Your task to perform on an android device: open device folders in google photos Image 0: 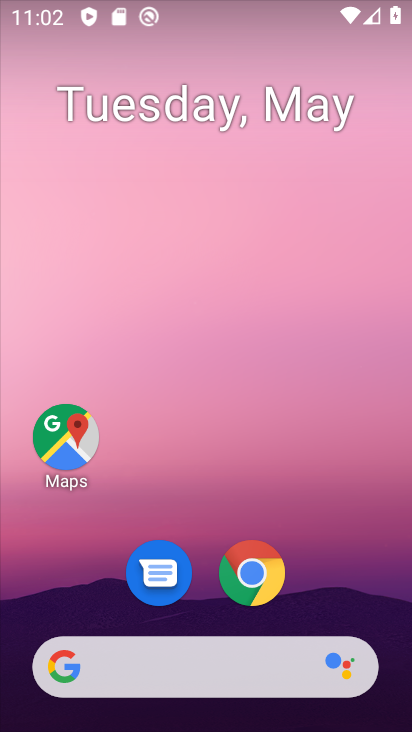
Step 0: drag from (236, 710) to (267, 159)
Your task to perform on an android device: open device folders in google photos Image 1: 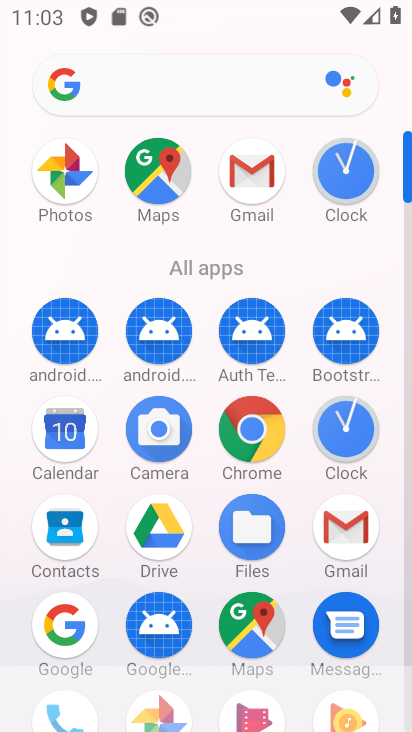
Step 1: drag from (194, 467) to (237, 276)
Your task to perform on an android device: open device folders in google photos Image 2: 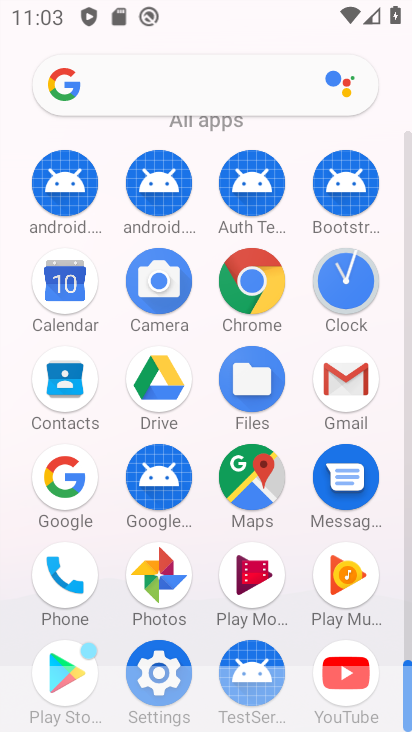
Step 2: click (150, 565)
Your task to perform on an android device: open device folders in google photos Image 3: 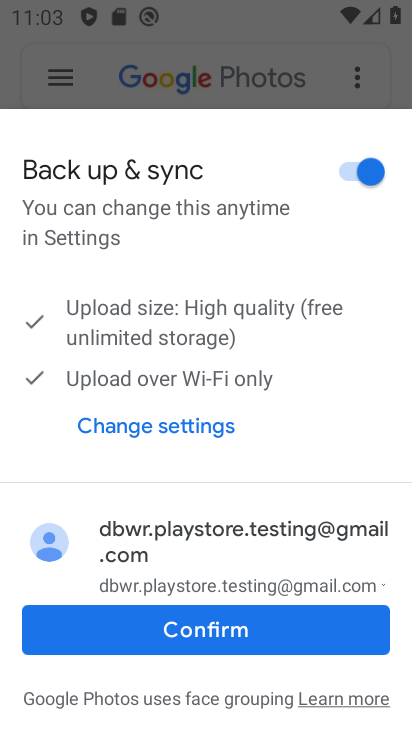
Step 3: click (222, 635)
Your task to perform on an android device: open device folders in google photos Image 4: 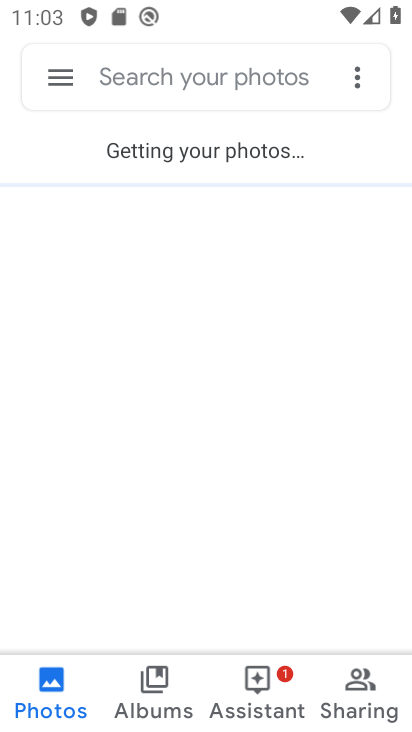
Step 4: click (59, 72)
Your task to perform on an android device: open device folders in google photos Image 5: 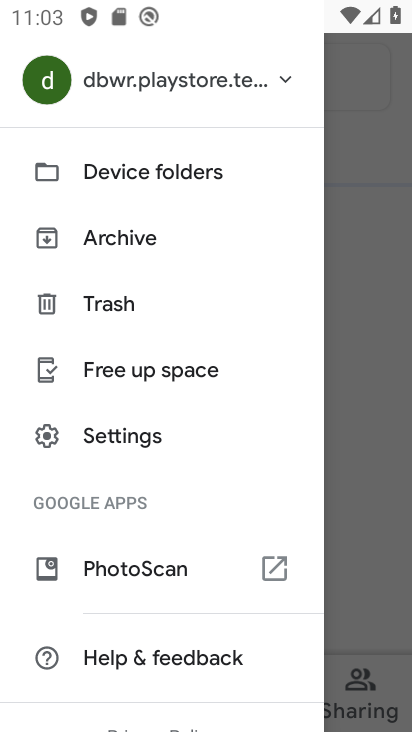
Step 5: click (146, 167)
Your task to perform on an android device: open device folders in google photos Image 6: 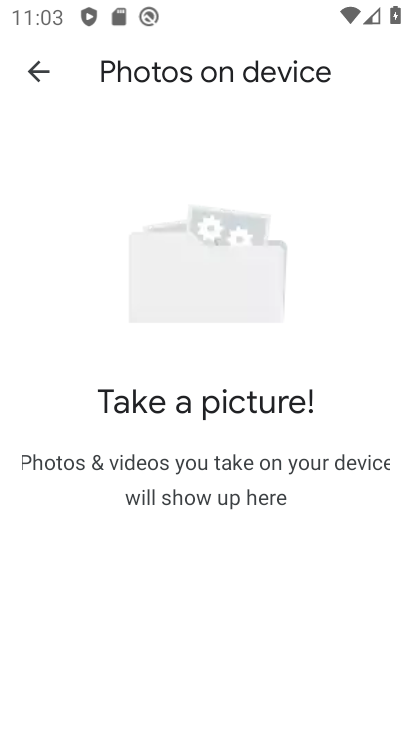
Step 6: task complete